Your task to perform on an android device: change timer sound Image 0: 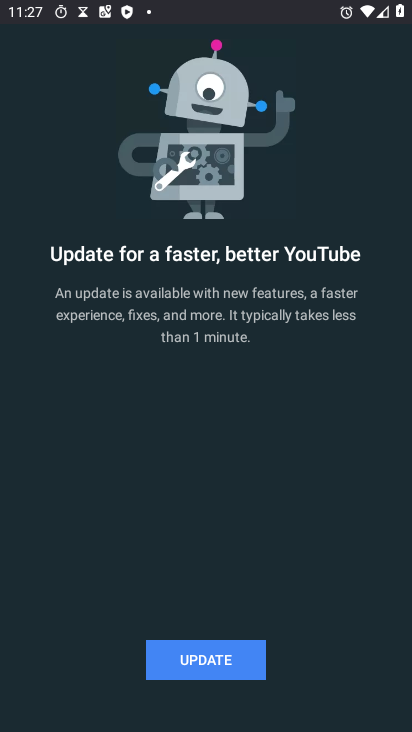
Step 0: press home button
Your task to perform on an android device: change timer sound Image 1: 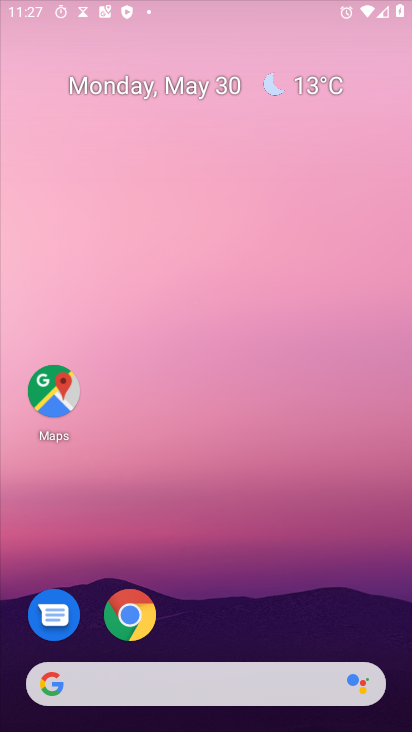
Step 1: drag from (320, 550) to (344, 38)
Your task to perform on an android device: change timer sound Image 2: 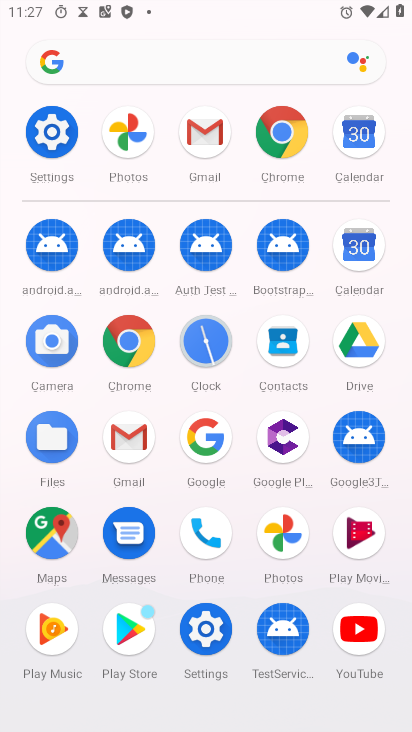
Step 2: click (197, 346)
Your task to perform on an android device: change timer sound Image 3: 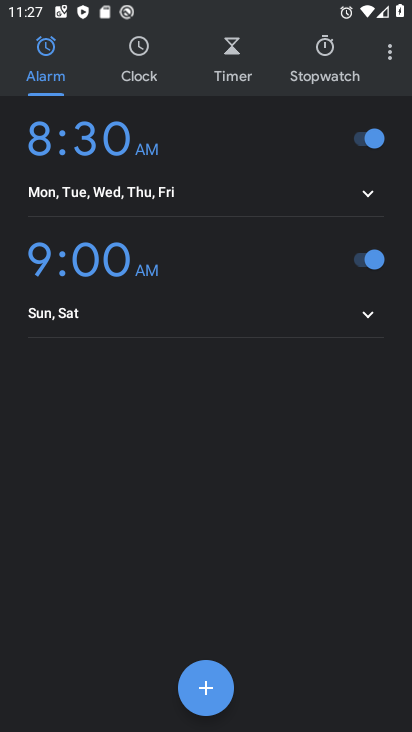
Step 3: click (378, 63)
Your task to perform on an android device: change timer sound Image 4: 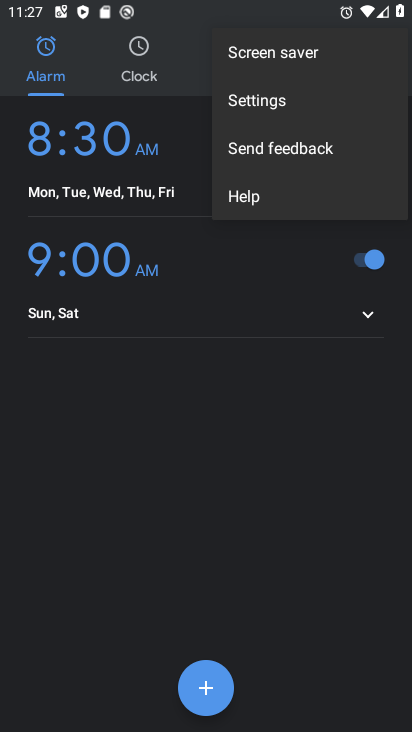
Step 4: click (288, 104)
Your task to perform on an android device: change timer sound Image 5: 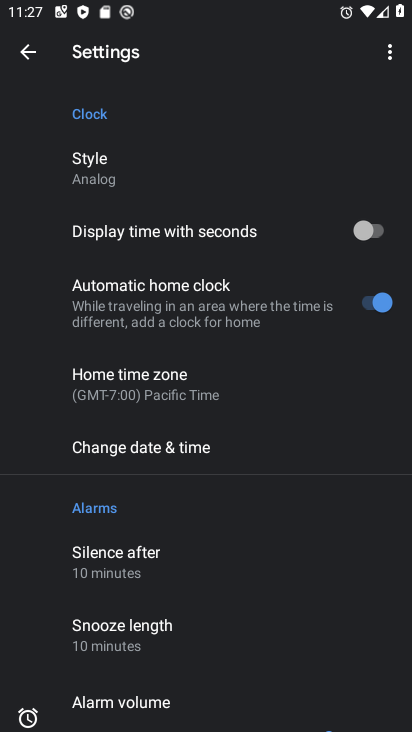
Step 5: drag from (173, 652) to (250, 311)
Your task to perform on an android device: change timer sound Image 6: 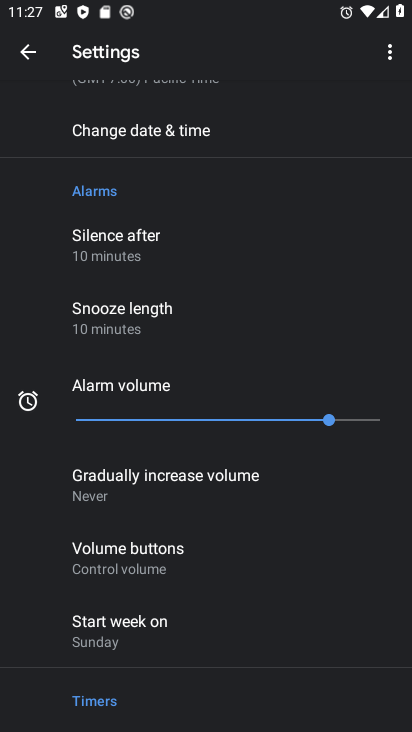
Step 6: drag from (163, 629) to (217, 353)
Your task to perform on an android device: change timer sound Image 7: 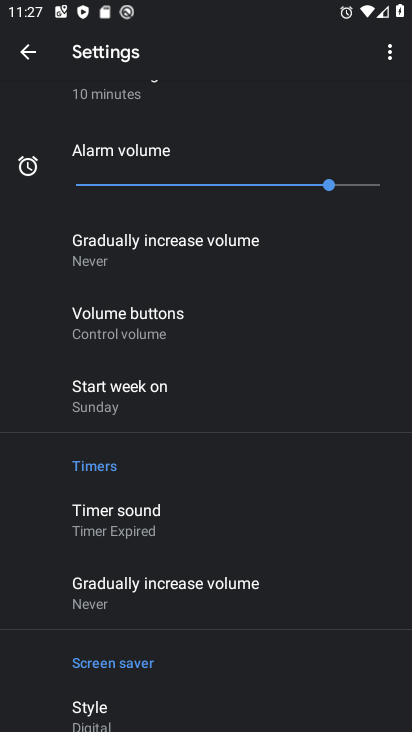
Step 7: click (121, 522)
Your task to perform on an android device: change timer sound Image 8: 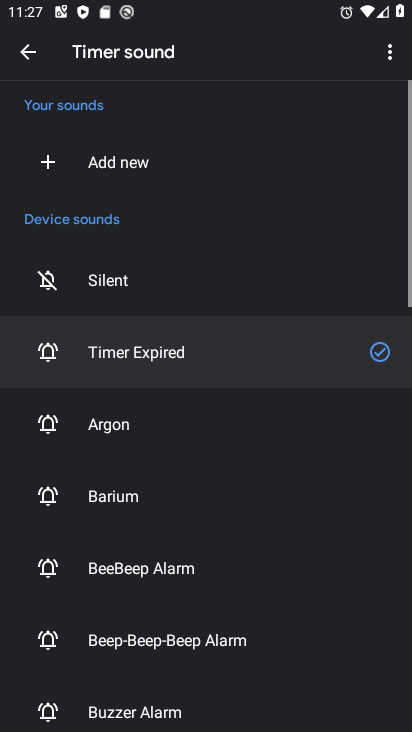
Step 8: click (124, 500)
Your task to perform on an android device: change timer sound Image 9: 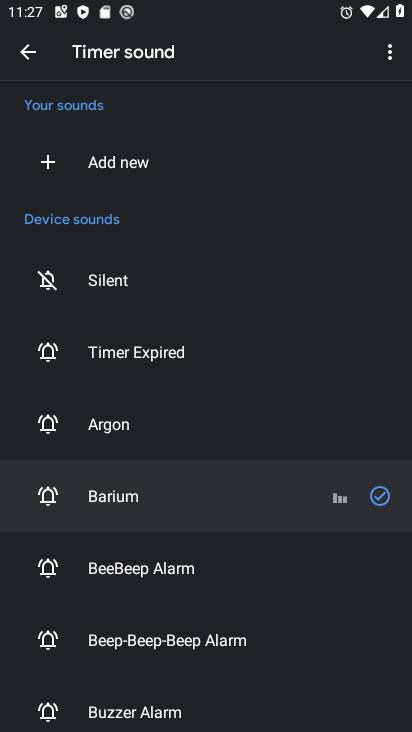
Step 9: task complete